Your task to perform on an android device: Search for Italian restaurants on Maps Image 0: 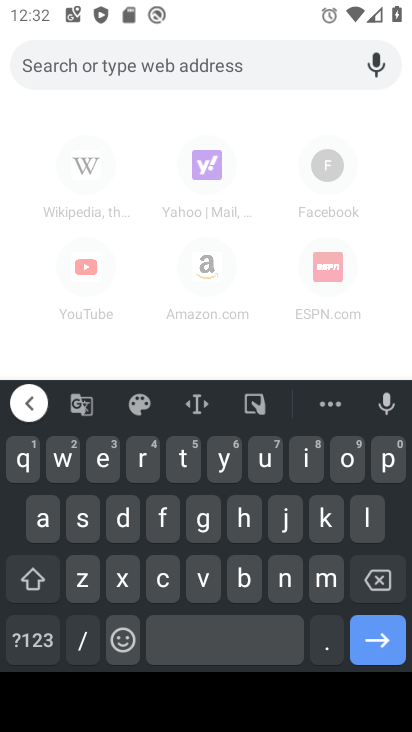
Step 0: press home button
Your task to perform on an android device: Search for Italian restaurants on Maps Image 1: 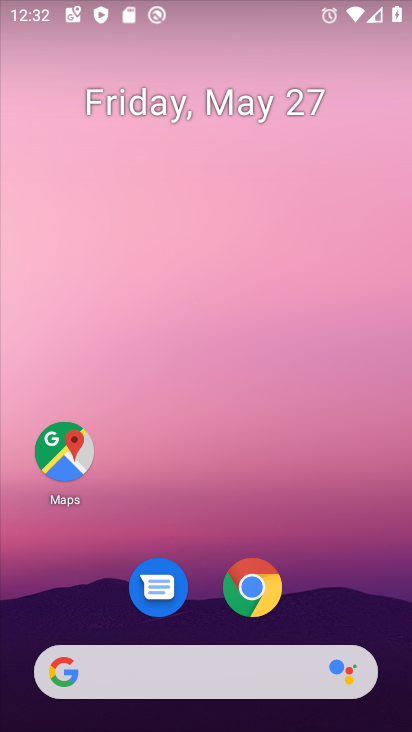
Step 1: drag from (277, 701) to (312, 94)
Your task to perform on an android device: Search for Italian restaurants on Maps Image 2: 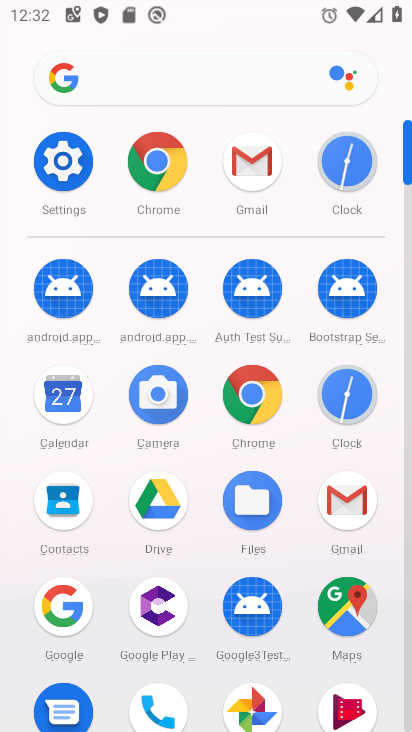
Step 2: click (346, 598)
Your task to perform on an android device: Search for Italian restaurants on Maps Image 3: 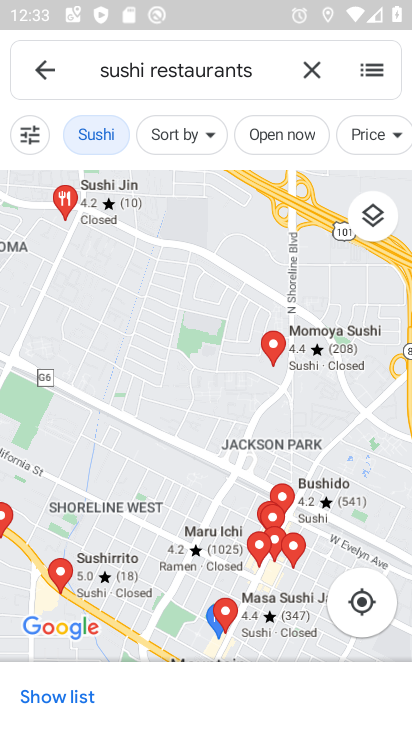
Step 3: click (315, 82)
Your task to perform on an android device: Search for Italian restaurants on Maps Image 4: 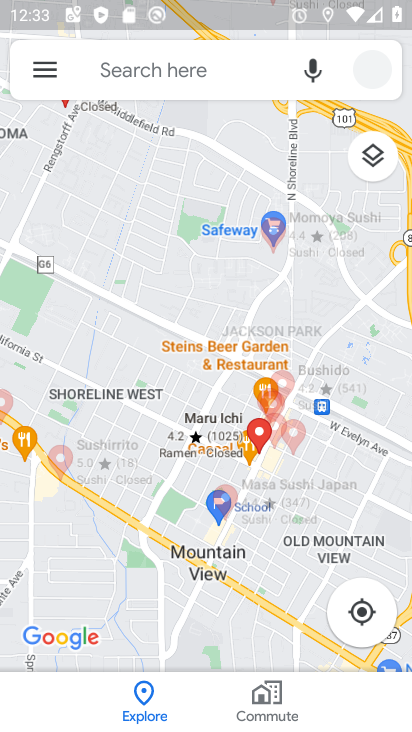
Step 4: click (254, 75)
Your task to perform on an android device: Search for Italian restaurants on Maps Image 5: 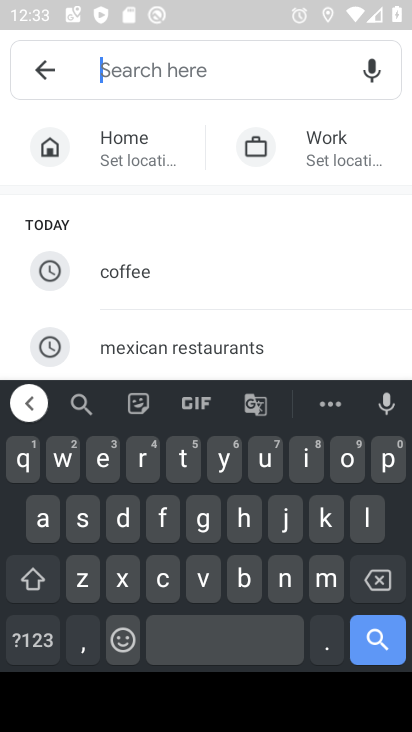
Step 5: click (308, 450)
Your task to perform on an android device: Search for Italian restaurants on Maps Image 6: 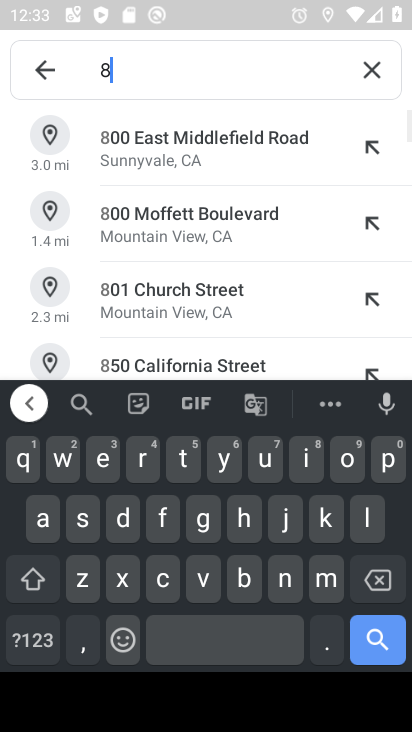
Step 6: click (379, 590)
Your task to perform on an android device: Search for Italian restaurants on Maps Image 7: 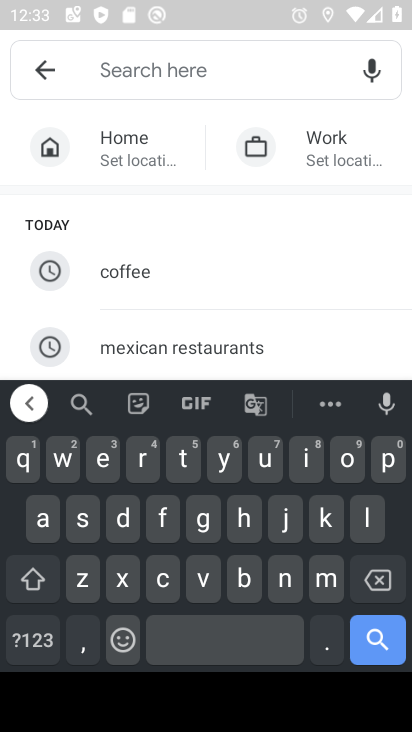
Step 7: click (300, 469)
Your task to perform on an android device: Search for Italian restaurants on Maps Image 8: 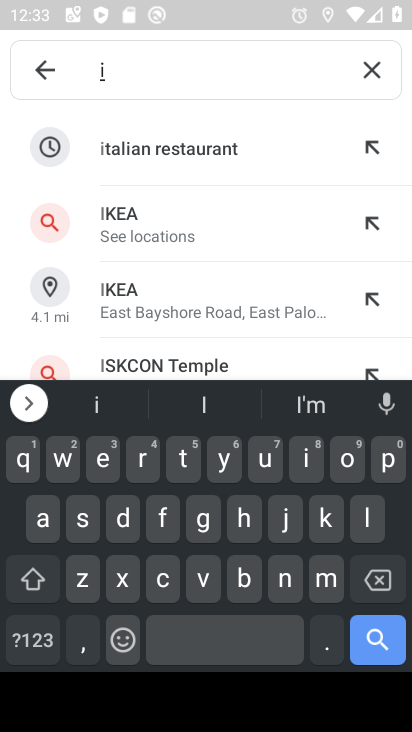
Step 8: click (200, 156)
Your task to perform on an android device: Search for Italian restaurants on Maps Image 9: 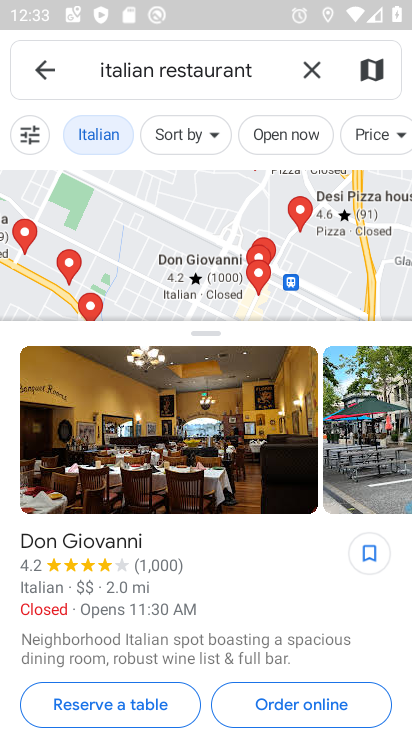
Step 9: task complete